Your task to perform on an android device: check storage Image 0: 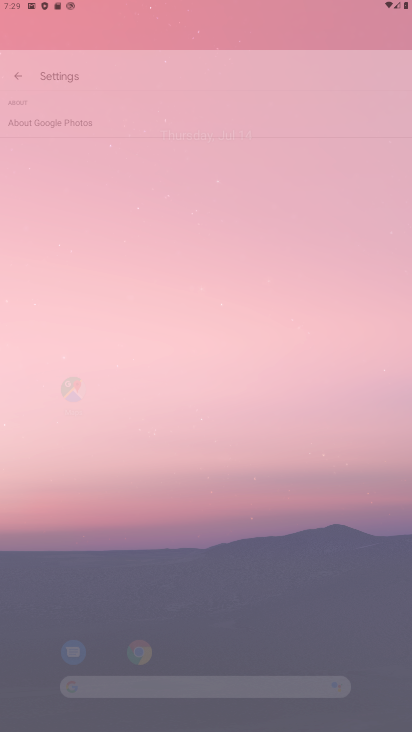
Step 0: click (14, 169)
Your task to perform on an android device: check storage Image 1: 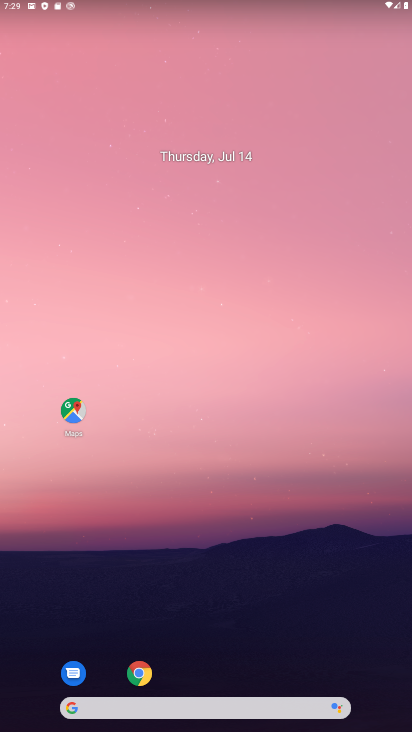
Step 1: drag from (147, 680) to (270, 31)
Your task to perform on an android device: check storage Image 2: 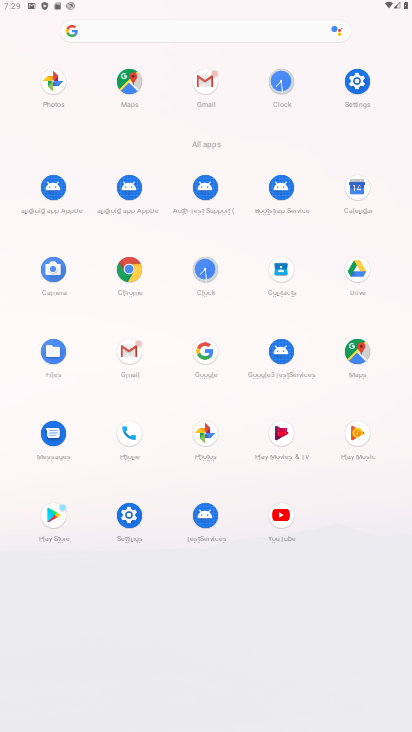
Step 2: click (344, 92)
Your task to perform on an android device: check storage Image 3: 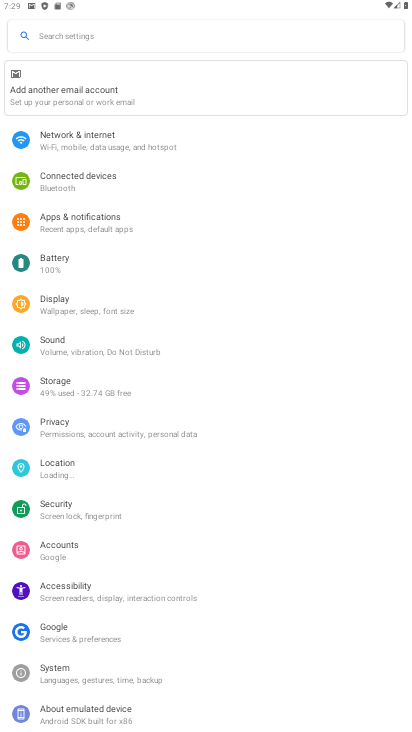
Step 3: drag from (184, 560) to (234, 303)
Your task to perform on an android device: check storage Image 4: 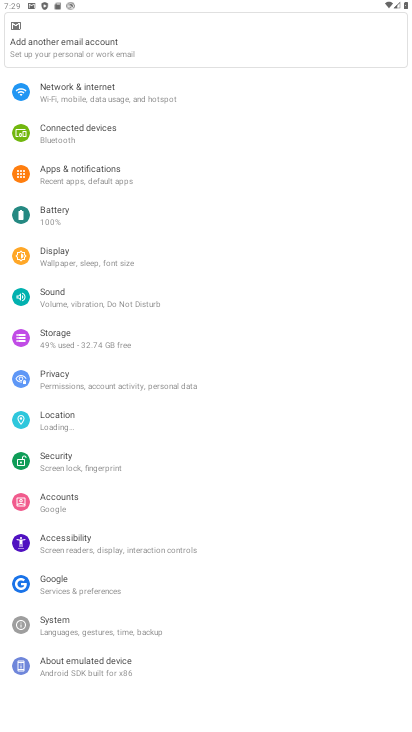
Step 4: click (67, 341)
Your task to perform on an android device: check storage Image 5: 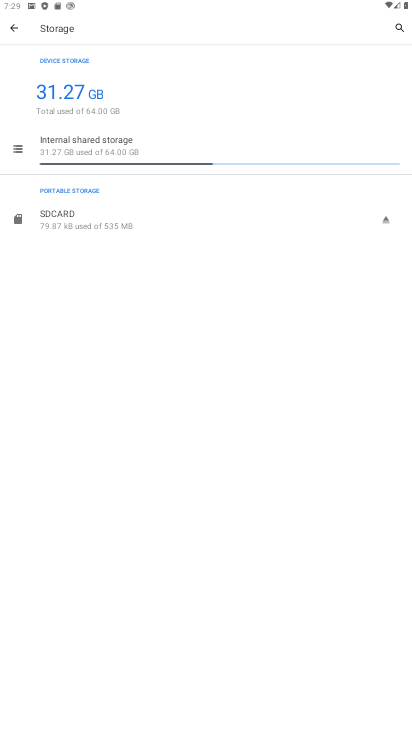
Step 5: task complete